Your task to perform on an android device: turn on javascript in the chrome app Image 0: 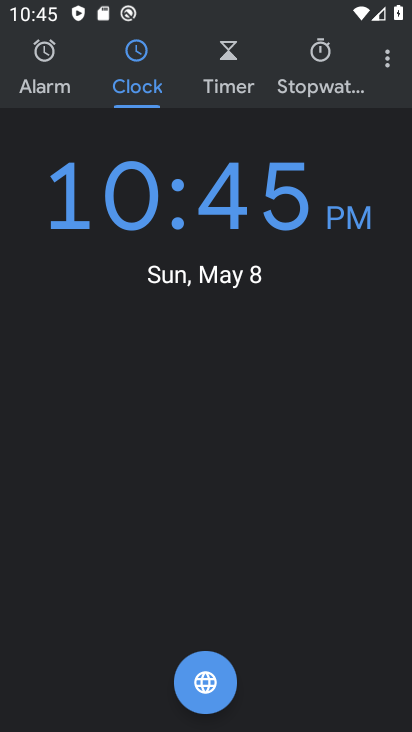
Step 0: press home button
Your task to perform on an android device: turn on javascript in the chrome app Image 1: 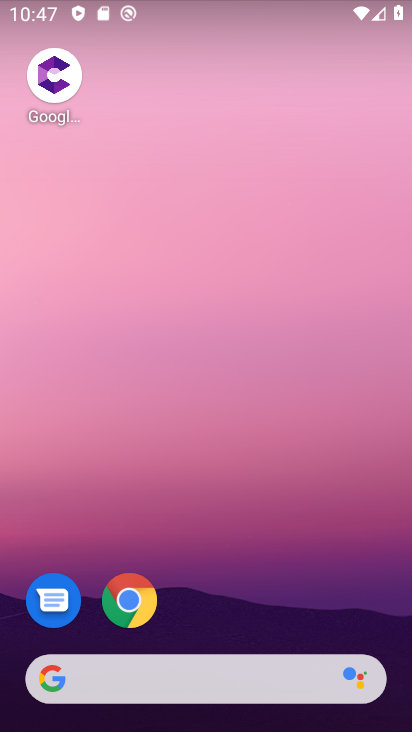
Step 1: click (129, 588)
Your task to perform on an android device: turn on javascript in the chrome app Image 2: 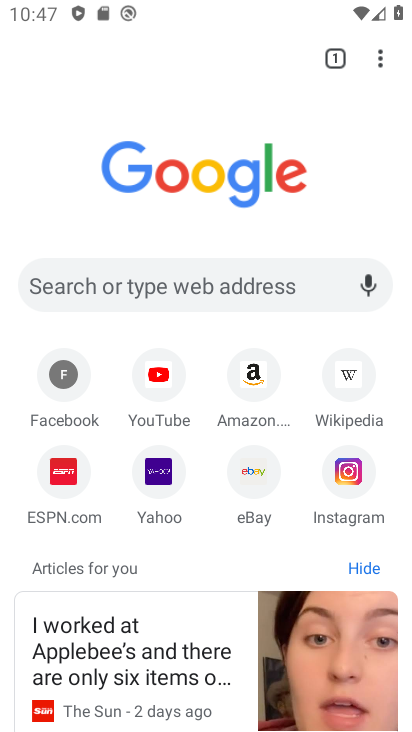
Step 2: click (375, 59)
Your task to perform on an android device: turn on javascript in the chrome app Image 3: 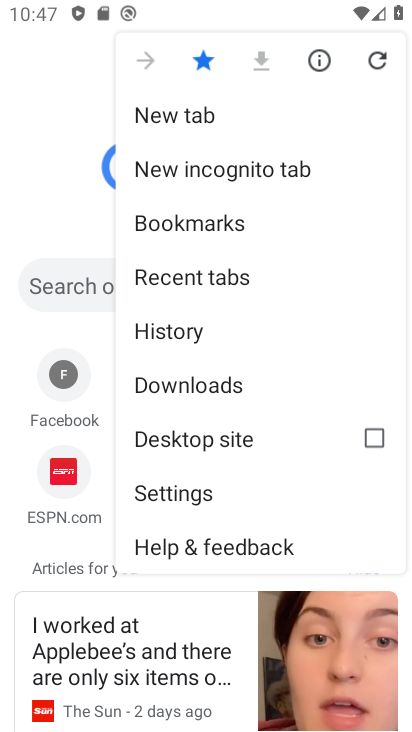
Step 3: click (182, 490)
Your task to perform on an android device: turn on javascript in the chrome app Image 4: 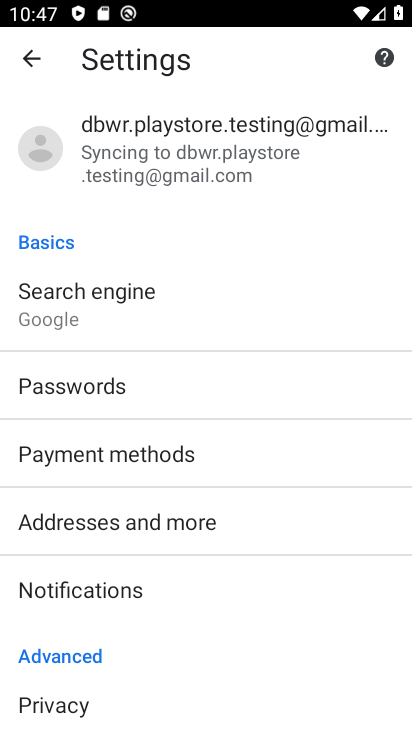
Step 4: drag from (338, 532) to (342, 409)
Your task to perform on an android device: turn on javascript in the chrome app Image 5: 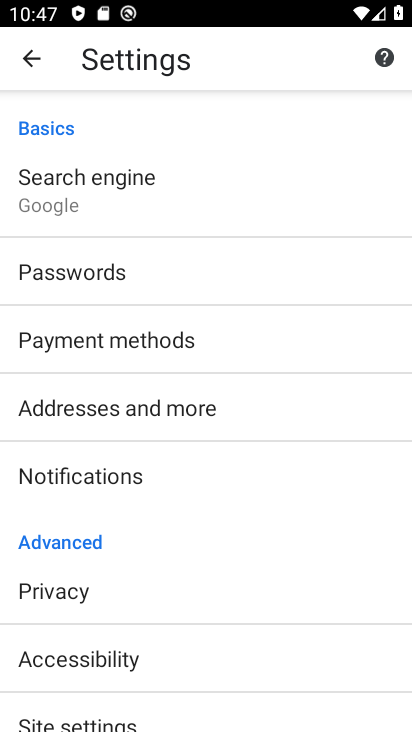
Step 5: drag from (291, 603) to (295, 385)
Your task to perform on an android device: turn on javascript in the chrome app Image 6: 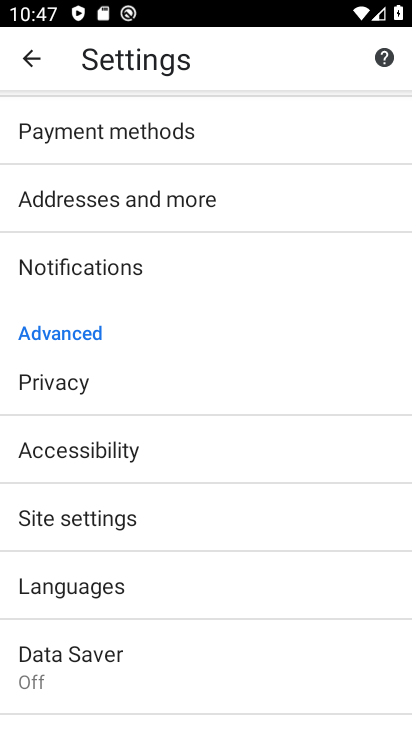
Step 6: click (83, 524)
Your task to perform on an android device: turn on javascript in the chrome app Image 7: 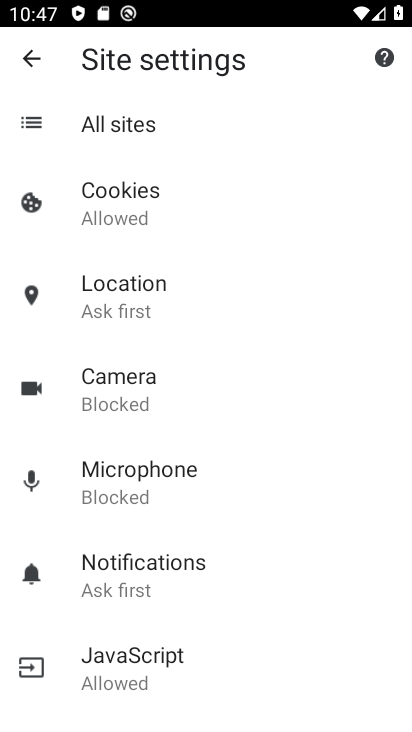
Step 7: click (139, 656)
Your task to perform on an android device: turn on javascript in the chrome app Image 8: 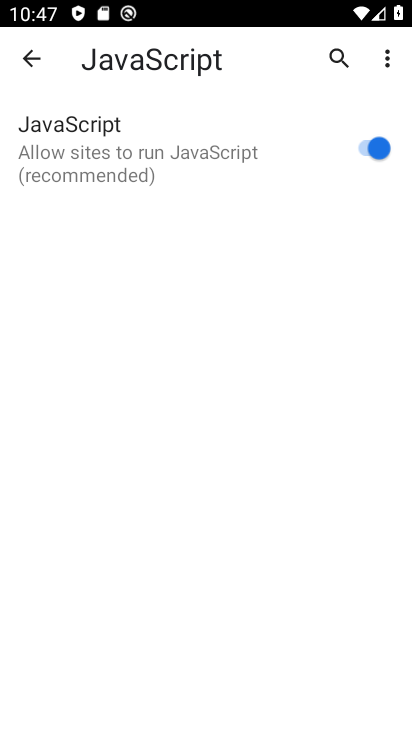
Step 8: task complete